Your task to perform on an android device: How big is the sun? Image 0: 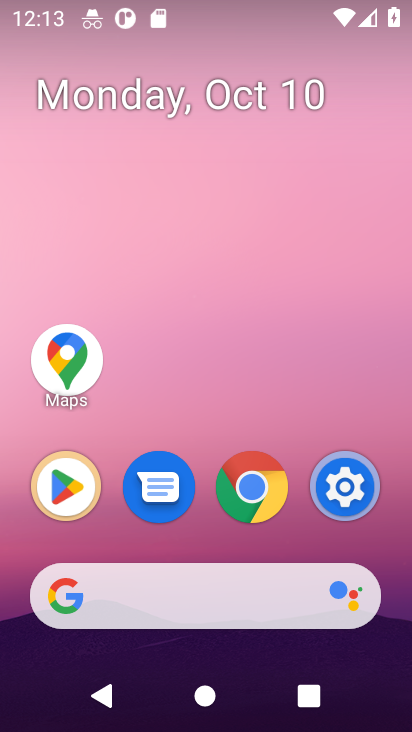
Step 0: click (254, 500)
Your task to perform on an android device: How big is the sun? Image 1: 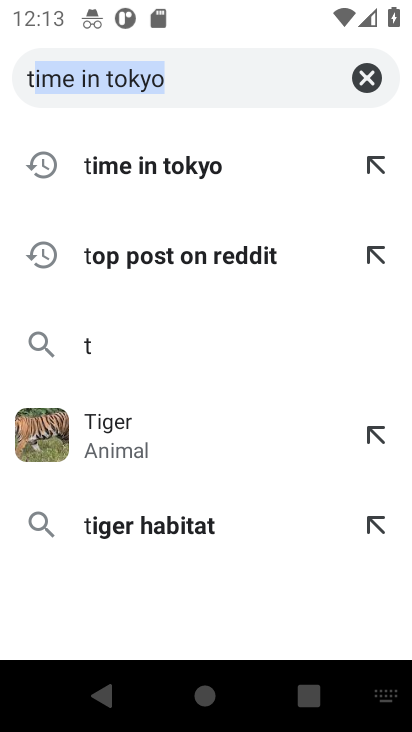
Step 1: click (369, 83)
Your task to perform on an android device: How big is the sun? Image 2: 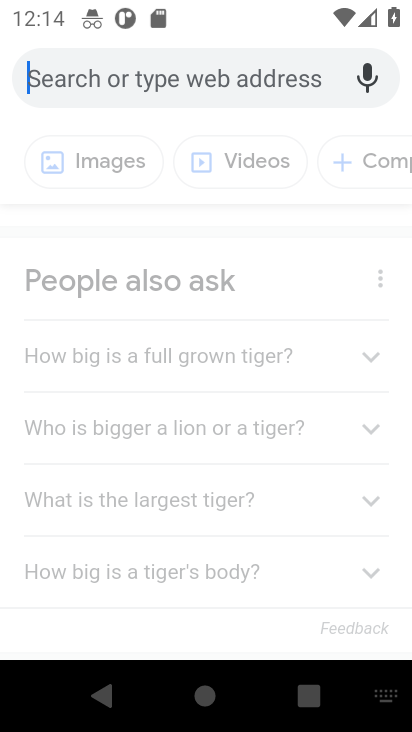
Step 2: type "how big is the sun"
Your task to perform on an android device: How big is the sun? Image 3: 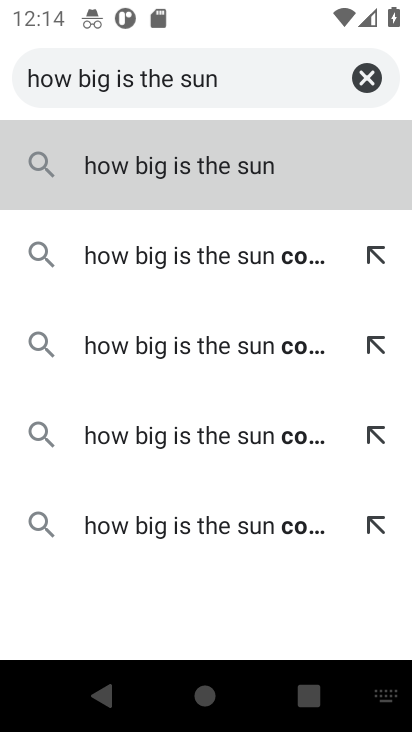
Step 3: press enter
Your task to perform on an android device: How big is the sun? Image 4: 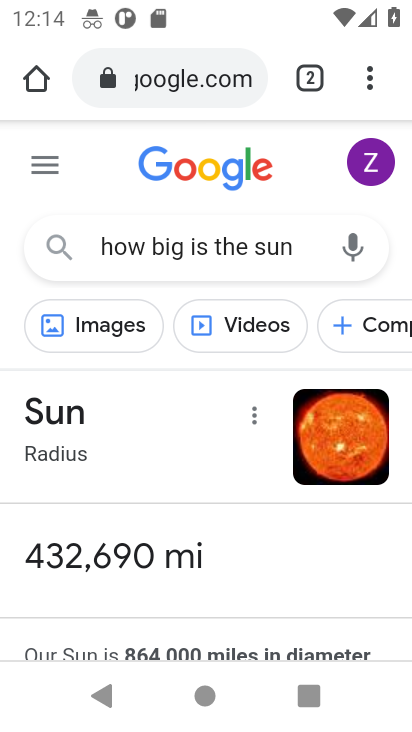
Step 4: drag from (233, 556) to (200, 205)
Your task to perform on an android device: How big is the sun? Image 5: 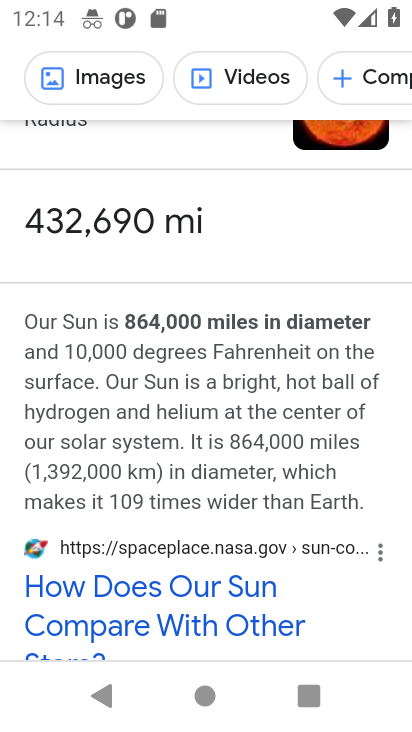
Step 5: drag from (329, 270) to (306, 489)
Your task to perform on an android device: How big is the sun? Image 6: 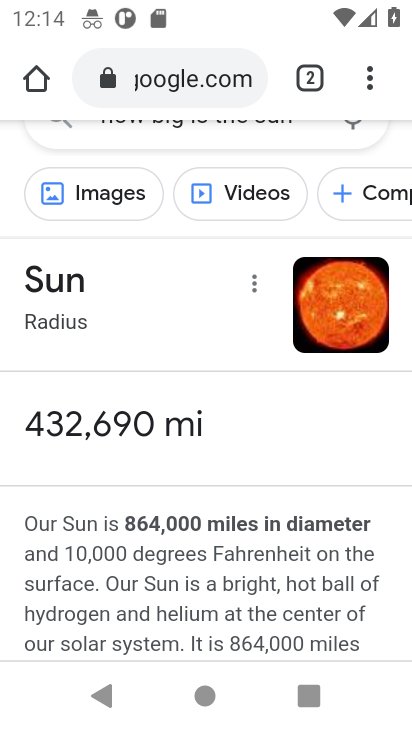
Step 6: drag from (243, 177) to (243, 492)
Your task to perform on an android device: How big is the sun? Image 7: 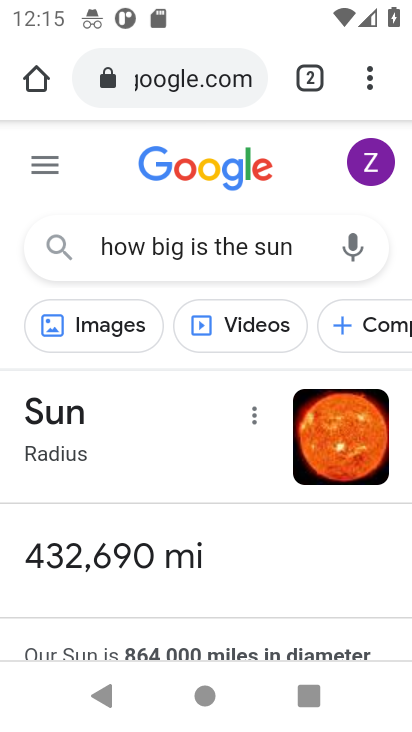
Step 7: click (400, 444)
Your task to perform on an android device: How big is the sun? Image 8: 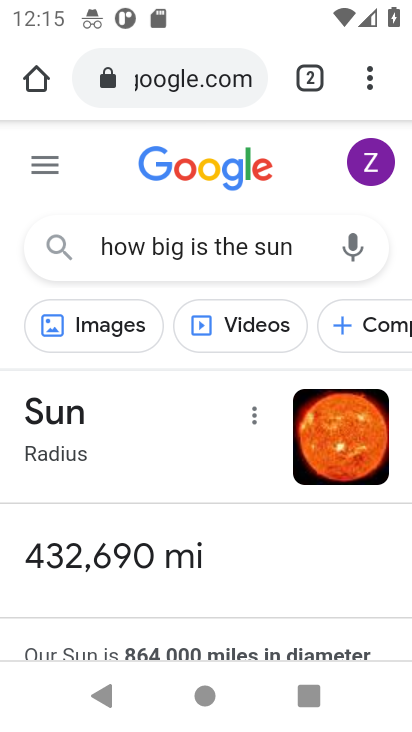
Step 8: task complete